Your task to perform on an android device: open wifi settings Image 0: 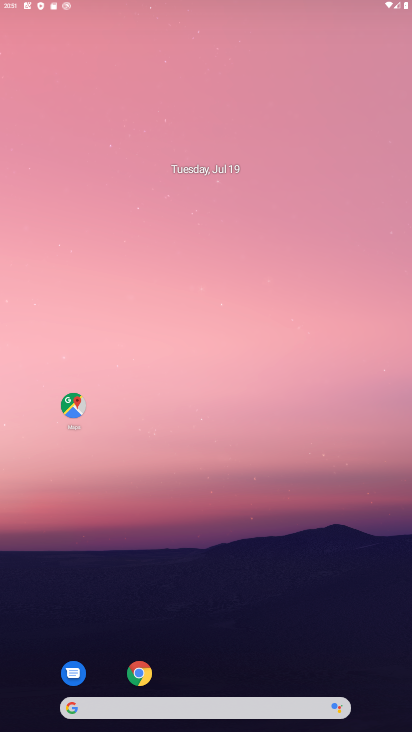
Step 0: drag from (220, 663) to (258, 0)
Your task to perform on an android device: open wifi settings Image 1: 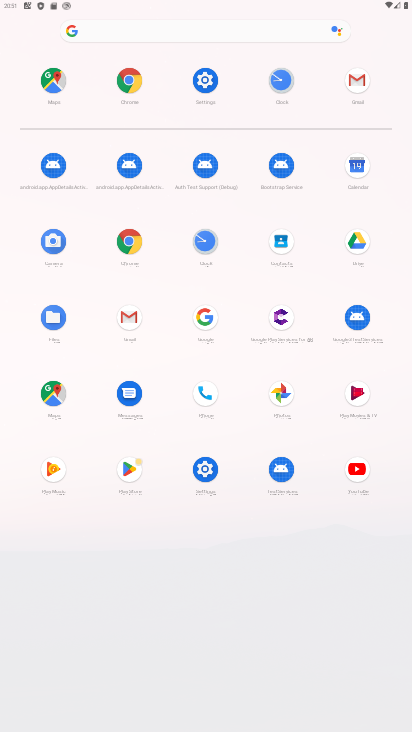
Step 1: click (206, 115)
Your task to perform on an android device: open wifi settings Image 2: 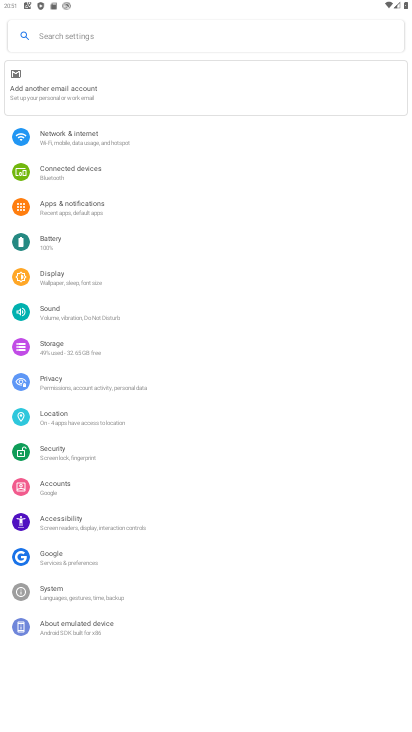
Step 2: click (78, 138)
Your task to perform on an android device: open wifi settings Image 3: 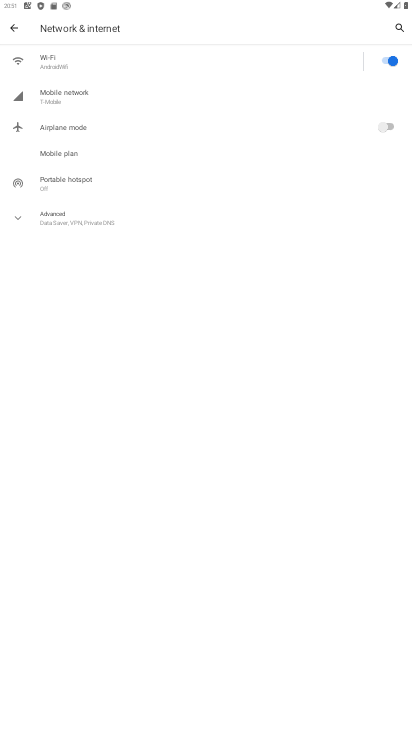
Step 3: click (54, 63)
Your task to perform on an android device: open wifi settings Image 4: 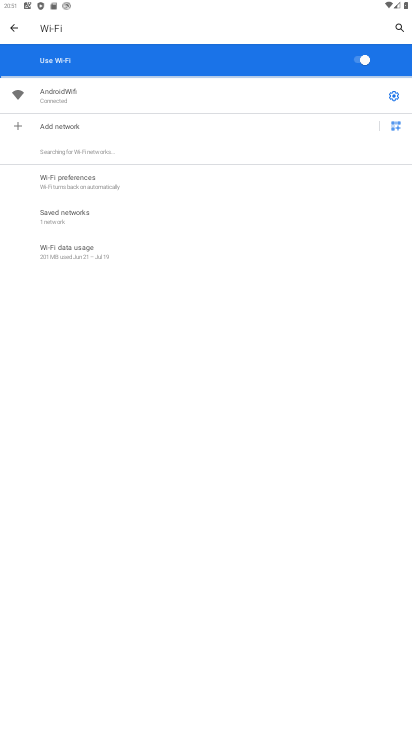
Step 4: task complete